Your task to perform on an android device: Show me the alarms in the clock app Image 0: 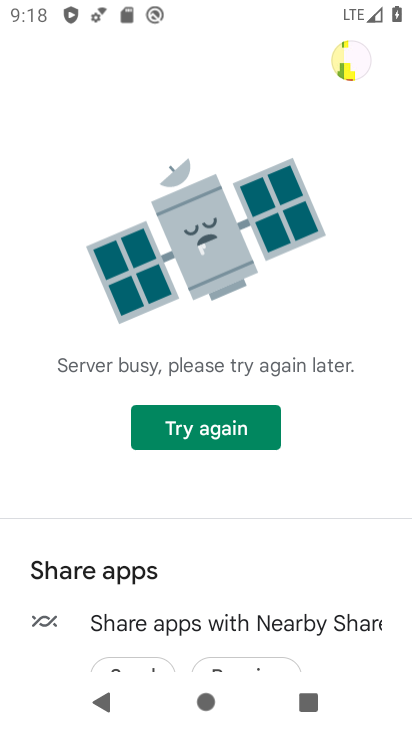
Step 0: press back button
Your task to perform on an android device: Show me the alarms in the clock app Image 1: 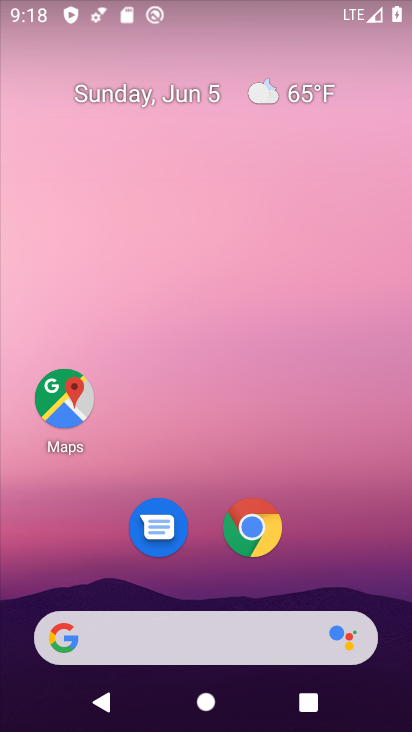
Step 1: drag from (208, 625) to (232, 114)
Your task to perform on an android device: Show me the alarms in the clock app Image 2: 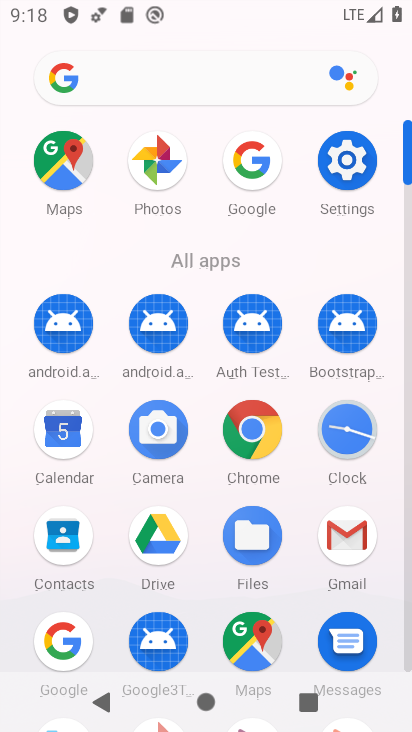
Step 2: click (344, 432)
Your task to perform on an android device: Show me the alarms in the clock app Image 3: 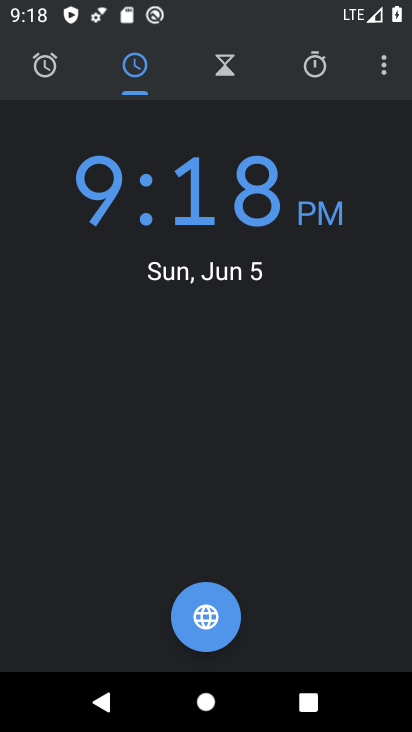
Step 3: click (50, 63)
Your task to perform on an android device: Show me the alarms in the clock app Image 4: 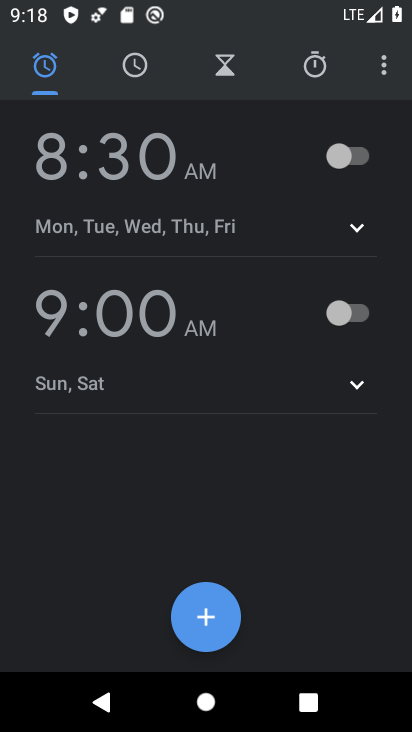
Step 4: task complete